Your task to perform on an android device: Open Chrome and go to the settings page Image 0: 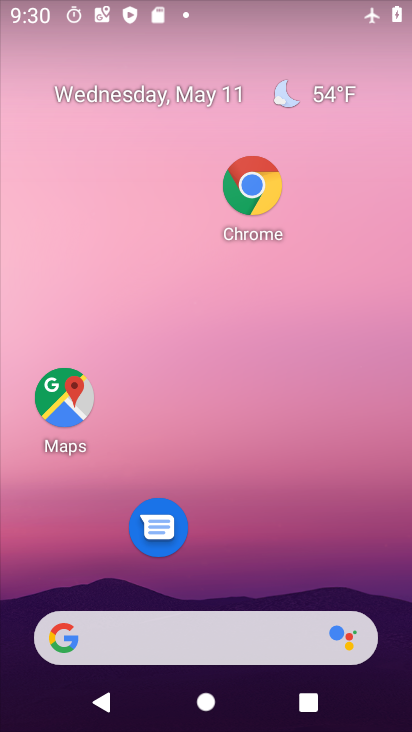
Step 0: click (254, 182)
Your task to perform on an android device: Open Chrome and go to the settings page Image 1: 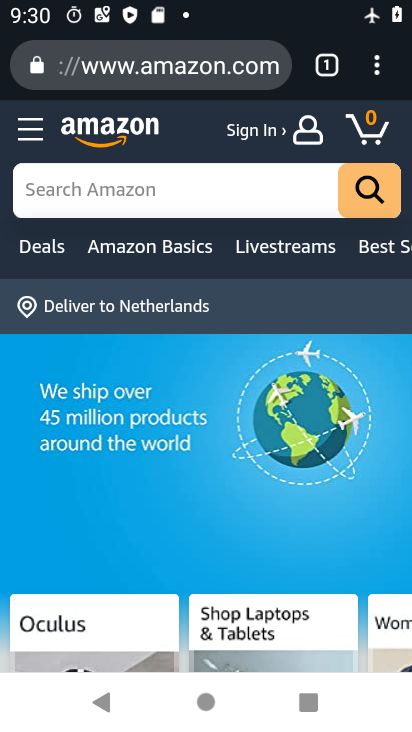
Step 1: drag from (255, 572) to (234, 492)
Your task to perform on an android device: Open Chrome and go to the settings page Image 2: 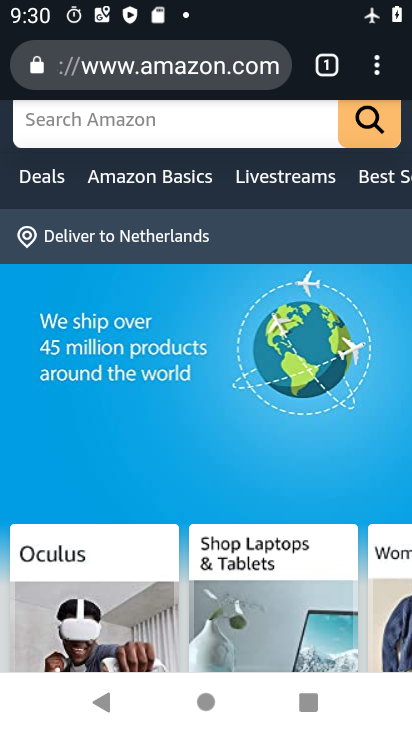
Step 2: click (369, 73)
Your task to perform on an android device: Open Chrome and go to the settings page Image 3: 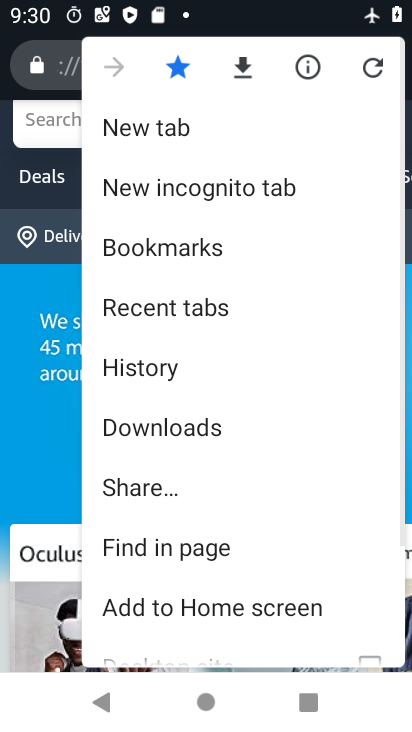
Step 3: drag from (232, 479) to (215, 164)
Your task to perform on an android device: Open Chrome and go to the settings page Image 4: 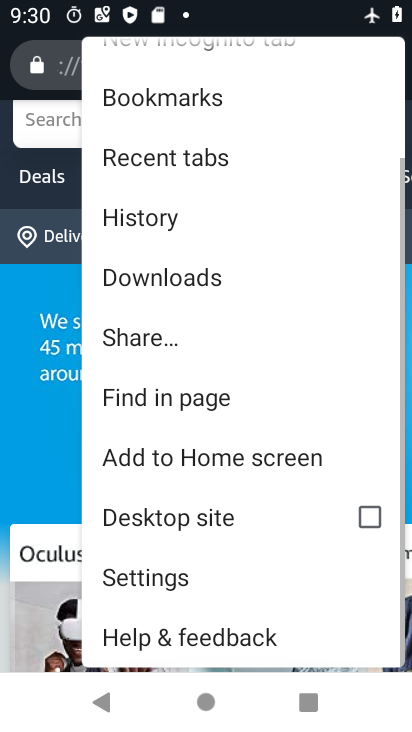
Step 4: click (199, 584)
Your task to perform on an android device: Open Chrome and go to the settings page Image 5: 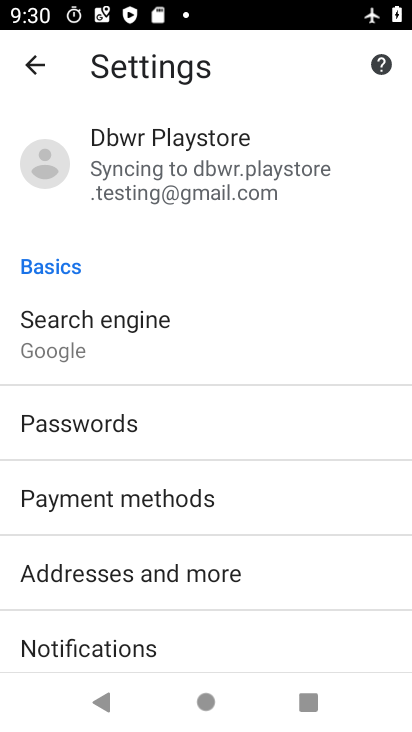
Step 5: task complete